Your task to perform on an android device: turn on data saver in the chrome app Image 0: 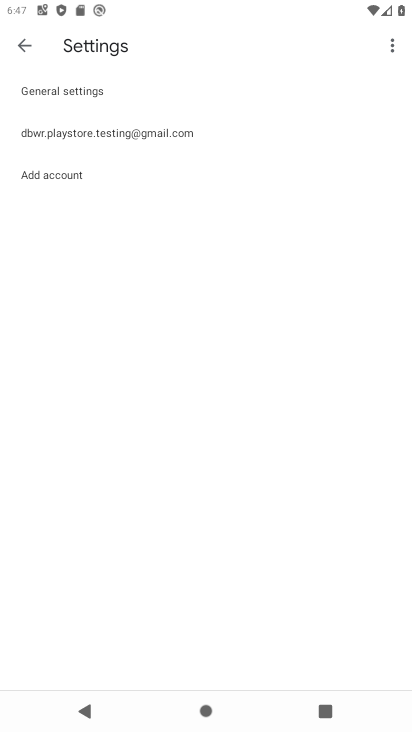
Step 0: press home button
Your task to perform on an android device: turn on data saver in the chrome app Image 1: 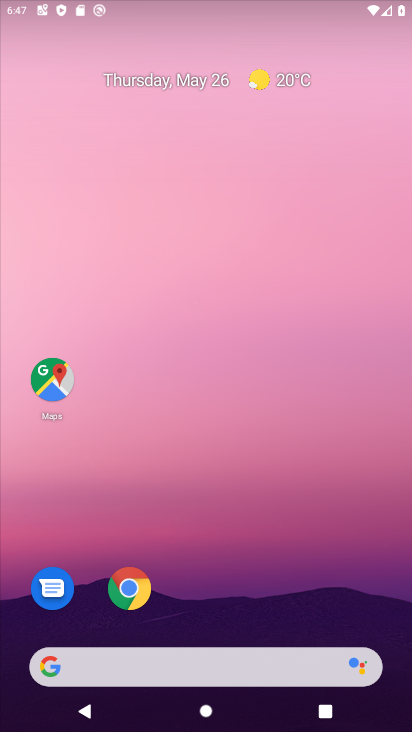
Step 1: drag from (353, 605) to (253, 36)
Your task to perform on an android device: turn on data saver in the chrome app Image 2: 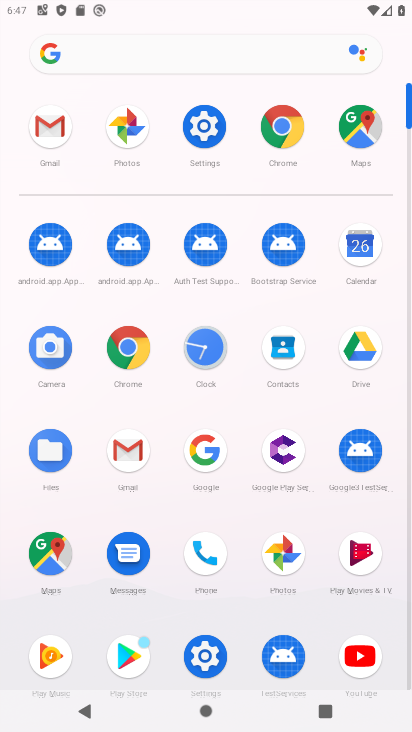
Step 2: click (129, 340)
Your task to perform on an android device: turn on data saver in the chrome app Image 3: 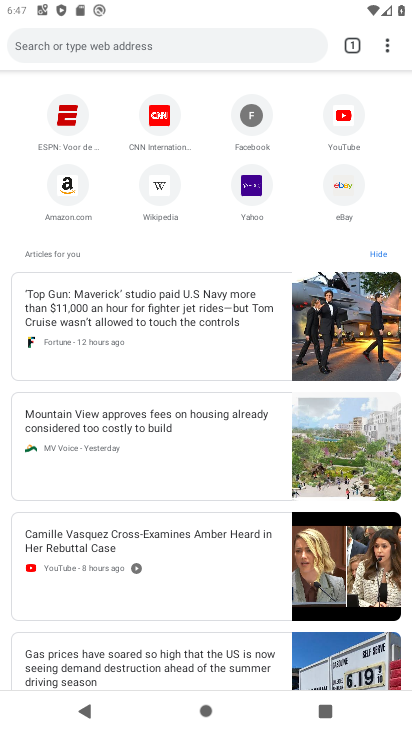
Step 3: click (389, 46)
Your task to perform on an android device: turn on data saver in the chrome app Image 4: 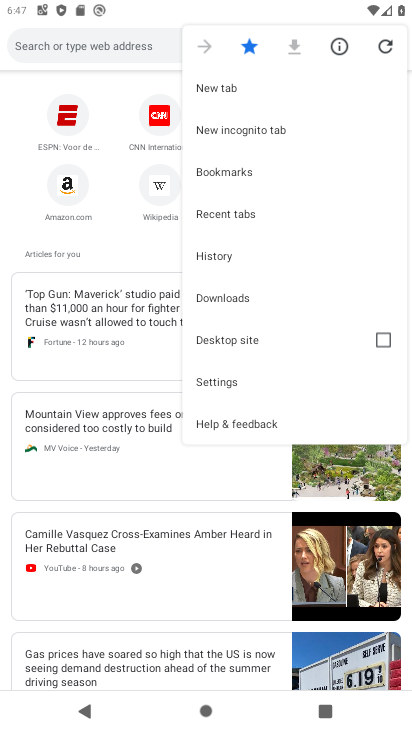
Step 4: click (229, 381)
Your task to perform on an android device: turn on data saver in the chrome app Image 5: 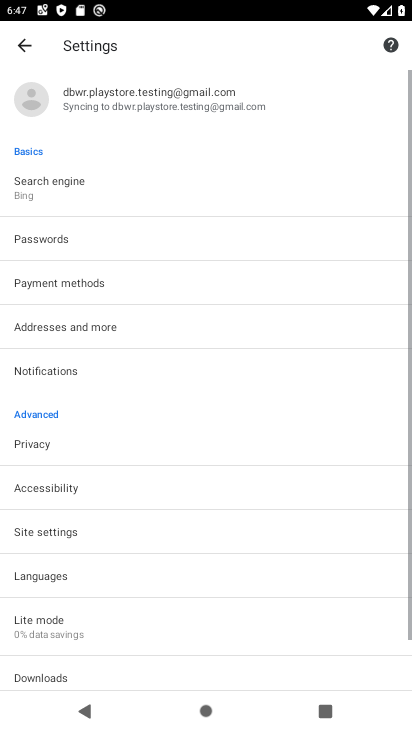
Step 5: click (88, 630)
Your task to perform on an android device: turn on data saver in the chrome app Image 6: 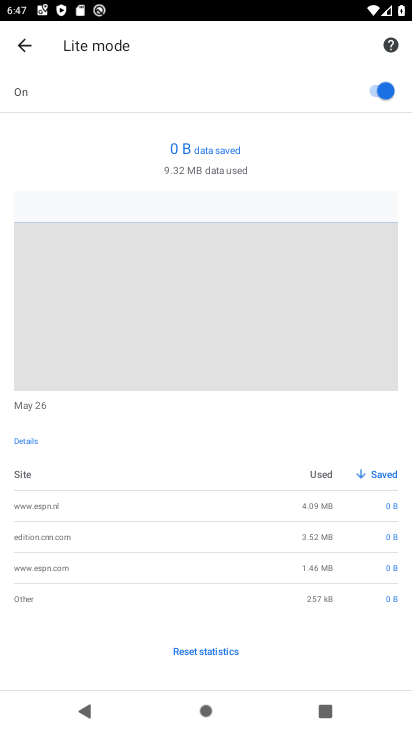
Step 6: task complete